Your task to perform on an android device: set the timer Image 0: 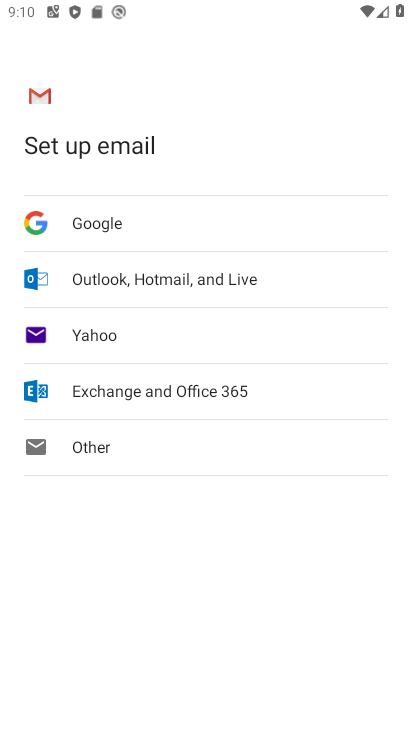
Step 0: press home button
Your task to perform on an android device: set the timer Image 1: 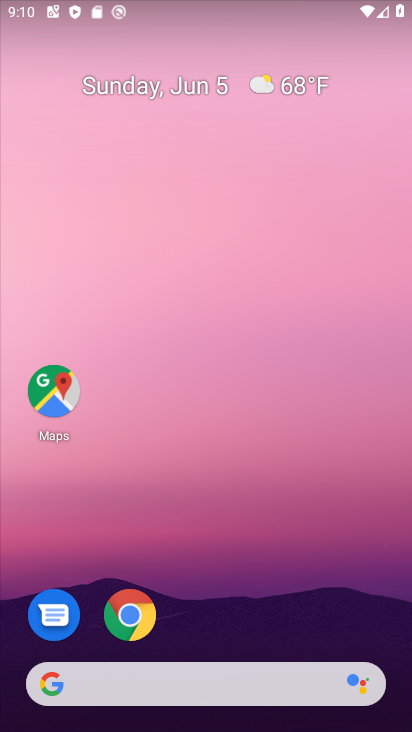
Step 1: drag from (132, 730) to (169, 68)
Your task to perform on an android device: set the timer Image 2: 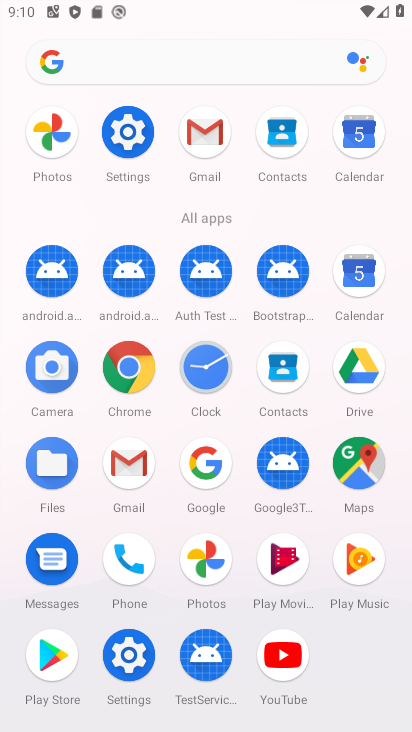
Step 2: click (186, 350)
Your task to perform on an android device: set the timer Image 3: 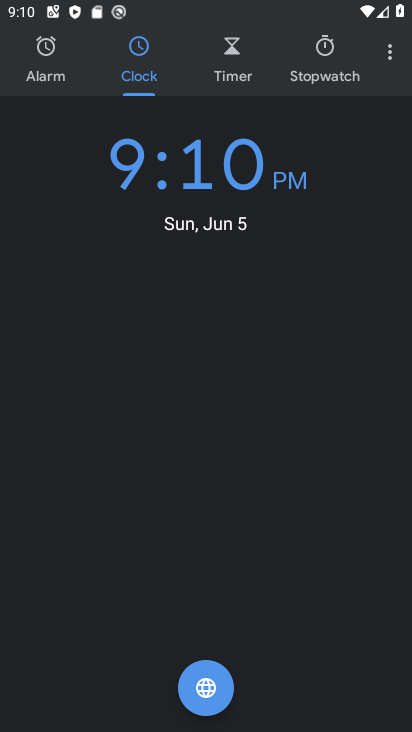
Step 3: click (233, 79)
Your task to perform on an android device: set the timer Image 4: 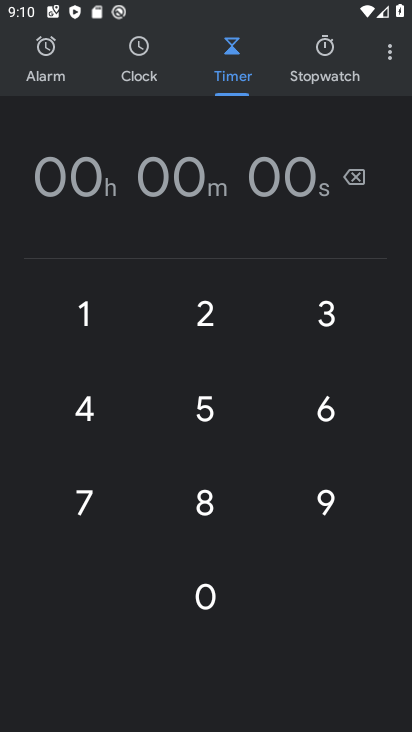
Step 4: click (112, 312)
Your task to perform on an android device: set the timer Image 5: 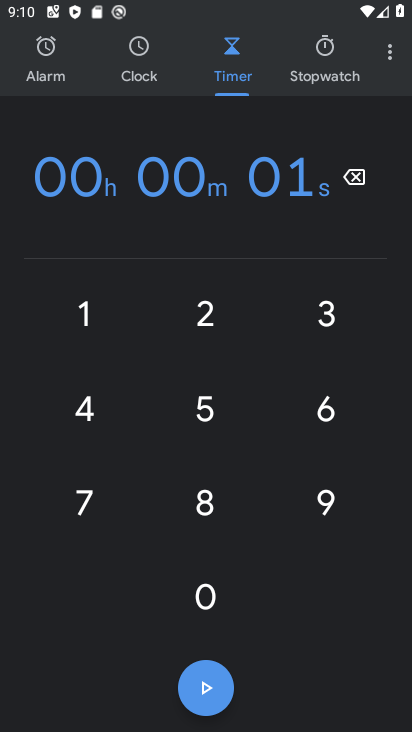
Step 5: click (203, 310)
Your task to perform on an android device: set the timer Image 6: 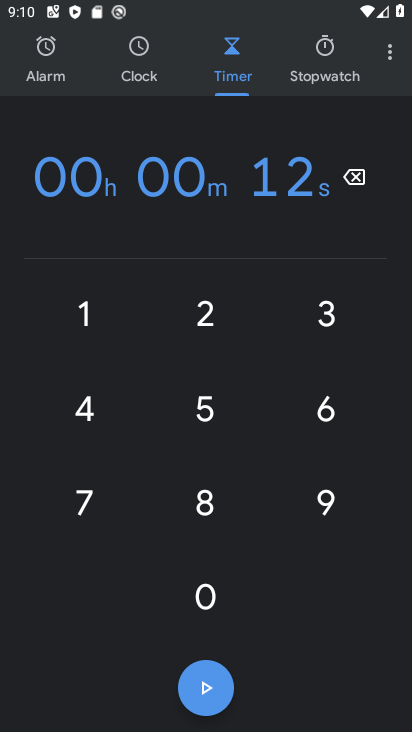
Step 6: click (188, 701)
Your task to perform on an android device: set the timer Image 7: 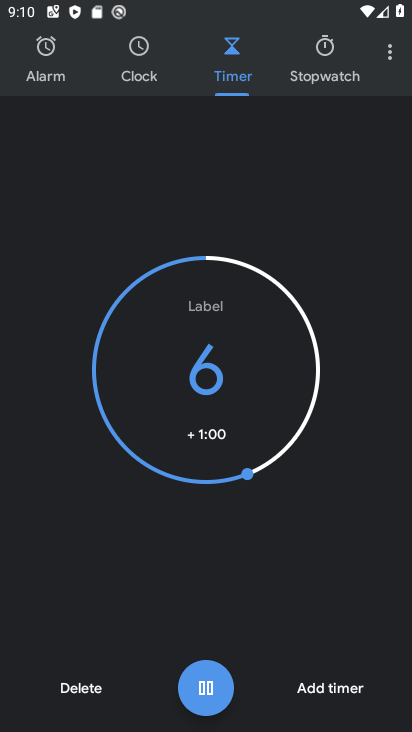
Step 7: click (188, 701)
Your task to perform on an android device: set the timer Image 8: 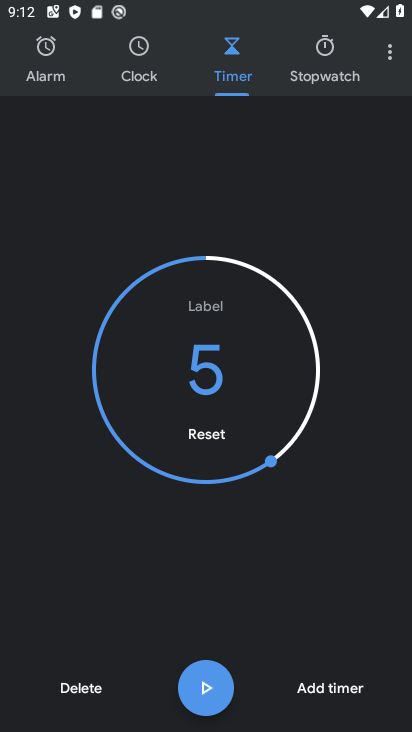
Step 8: task complete